Your task to perform on an android device: turn on notifications settings in the gmail app Image 0: 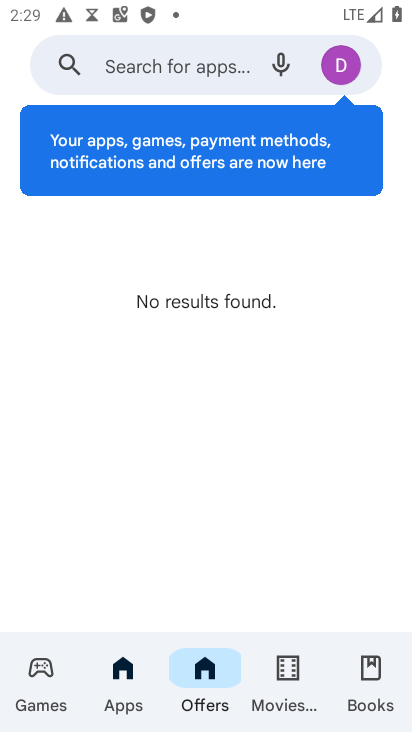
Step 0: press back button
Your task to perform on an android device: turn on notifications settings in the gmail app Image 1: 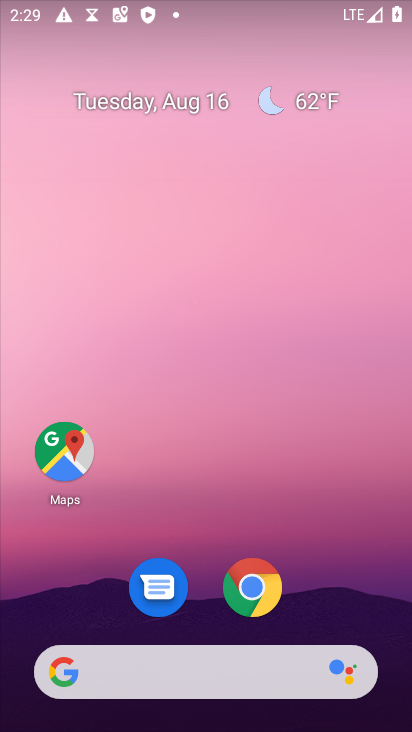
Step 1: drag from (210, 622) to (278, 53)
Your task to perform on an android device: turn on notifications settings in the gmail app Image 2: 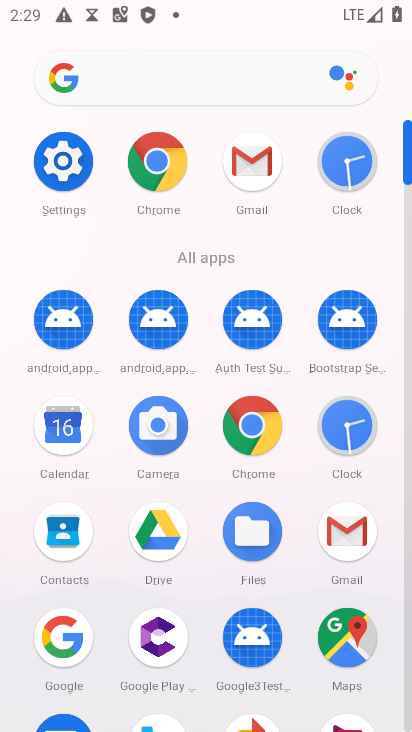
Step 2: click (79, 146)
Your task to perform on an android device: turn on notifications settings in the gmail app Image 3: 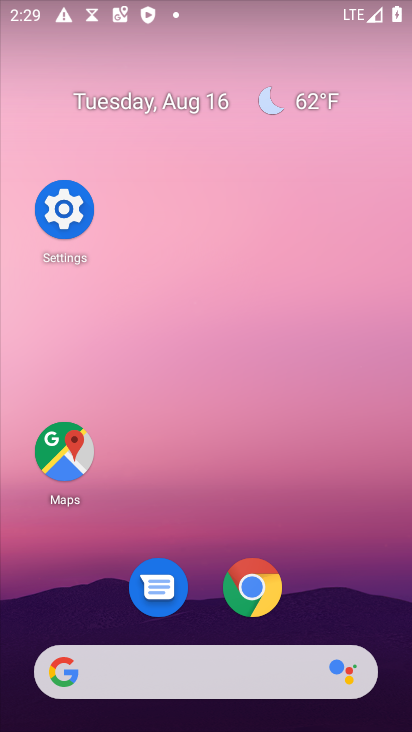
Step 3: drag from (296, 428) to (335, 0)
Your task to perform on an android device: turn on notifications settings in the gmail app Image 4: 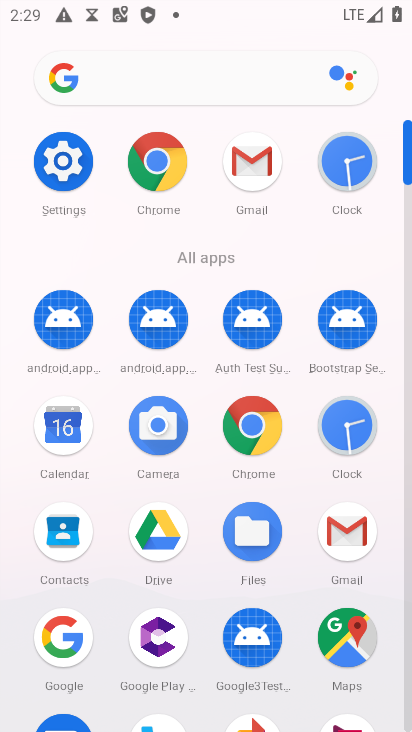
Step 4: click (254, 159)
Your task to perform on an android device: turn on notifications settings in the gmail app Image 5: 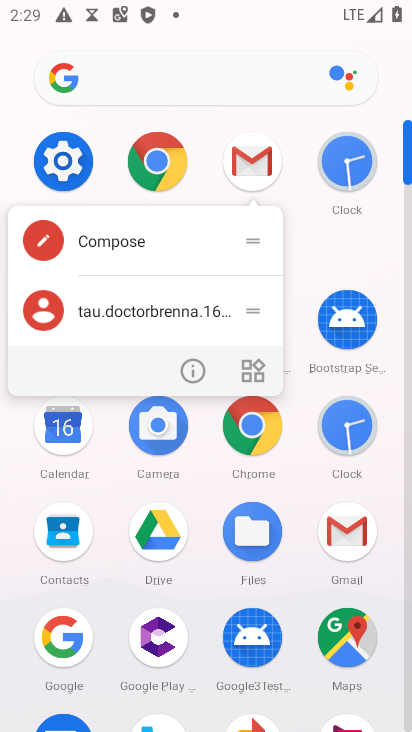
Step 5: click (194, 372)
Your task to perform on an android device: turn on notifications settings in the gmail app Image 6: 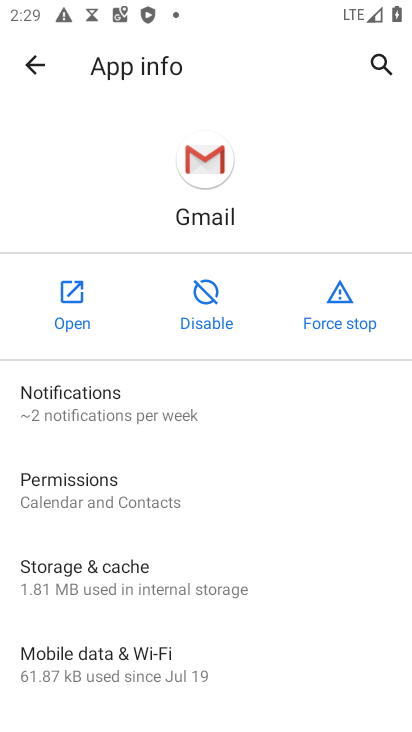
Step 6: click (153, 392)
Your task to perform on an android device: turn on notifications settings in the gmail app Image 7: 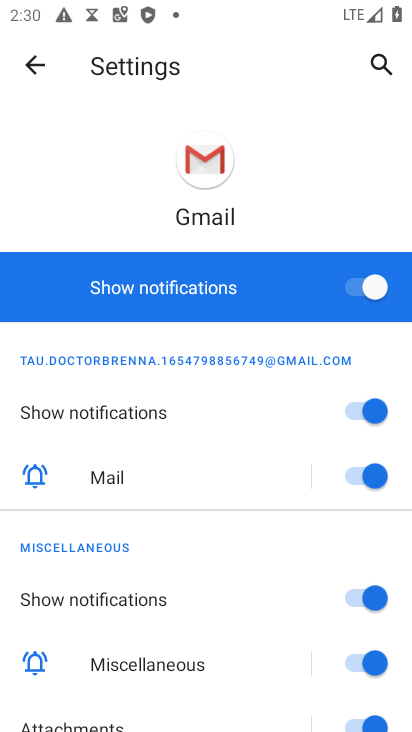
Step 7: task complete